Your task to perform on an android device: What's the weather today? Image 0: 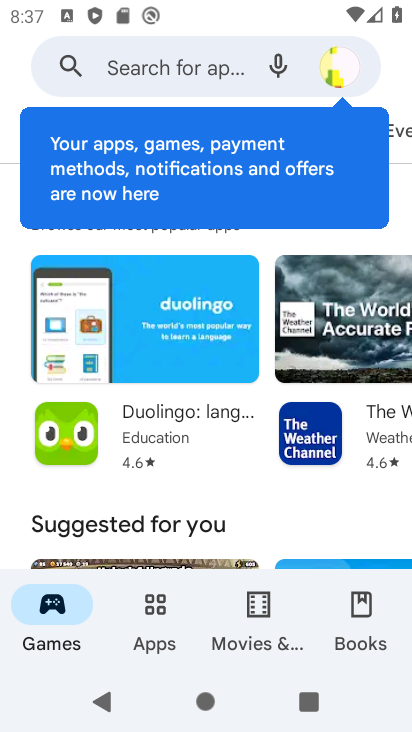
Step 0: press home button
Your task to perform on an android device: What's the weather today? Image 1: 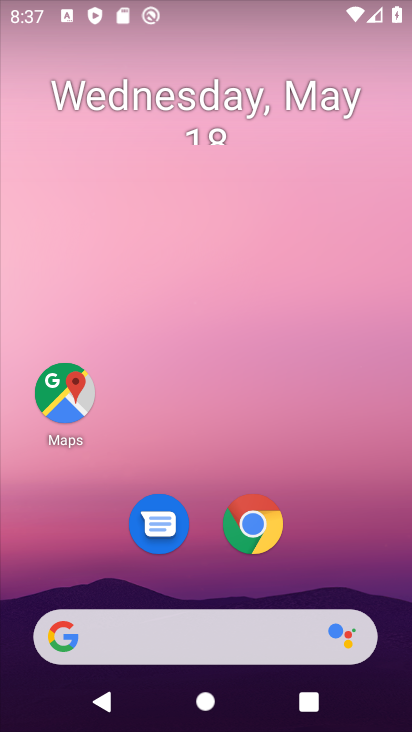
Step 1: click (164, 640)
Your task to perform on an android device: What's the weather today? Image 2: 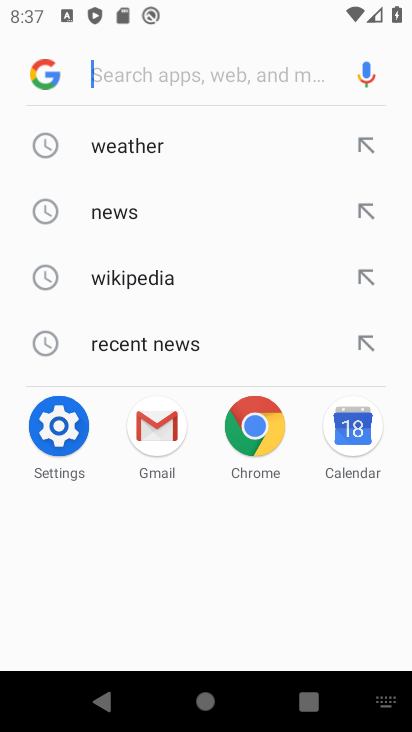
Step 2: click (115, 132)
Your task to perform on an android device: What's the weather today? Image 3: 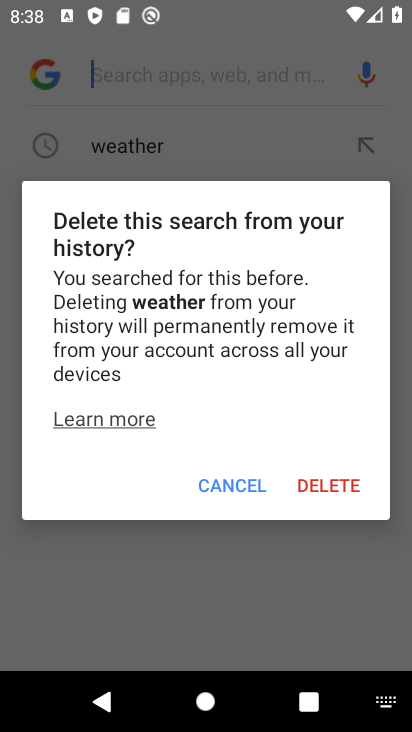
Step 3: click (230, 478)
Your task to perform on an android device: What's the weather today? Image 4: 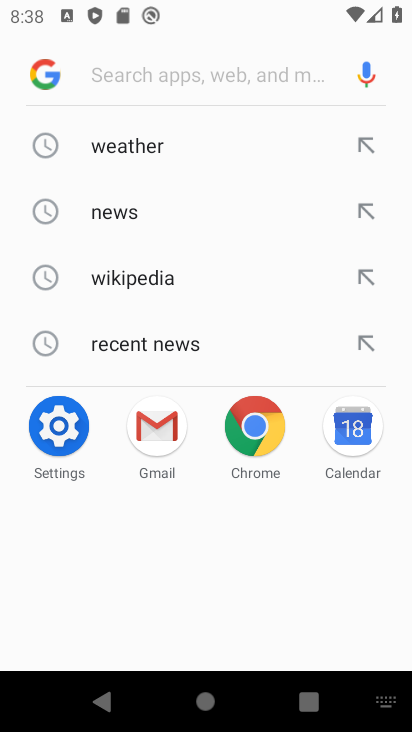
Step 4: click (155, 135)
Your task to perform on an android device: What's the weather today? Image 5: 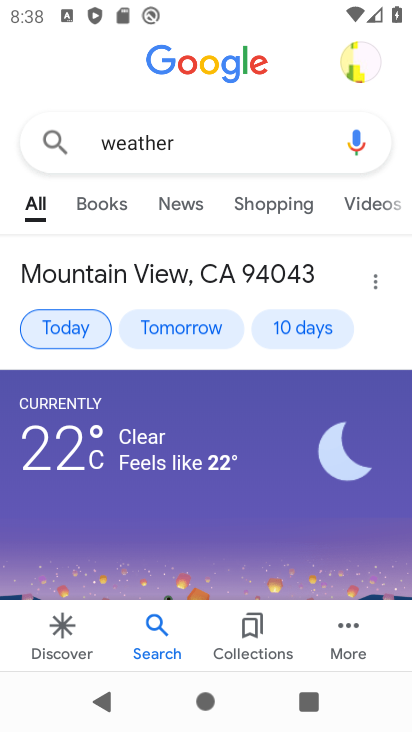
Step 5: click (72, 322)
Your task to perform on an android device: What's the weather today? Image 6: 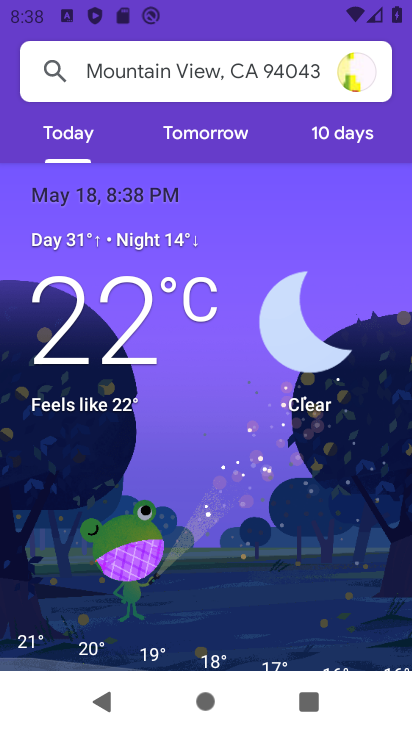
Step 6: task complete